Your task to perform on an android device: Go to battery settings Image 0: 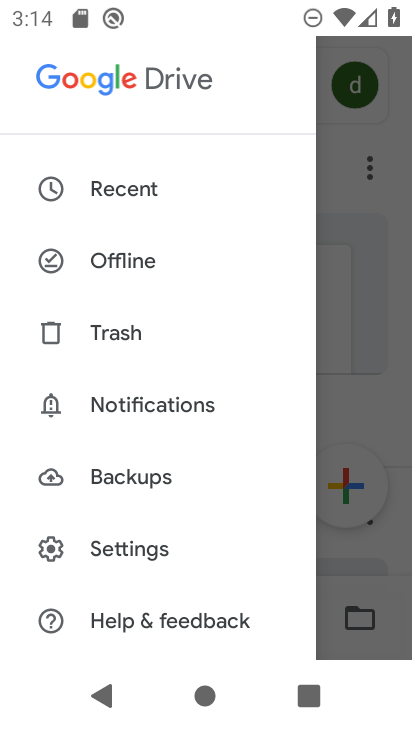
Step 0: press home button
Your task to perform on an android device: Go to battery settings Image 1: 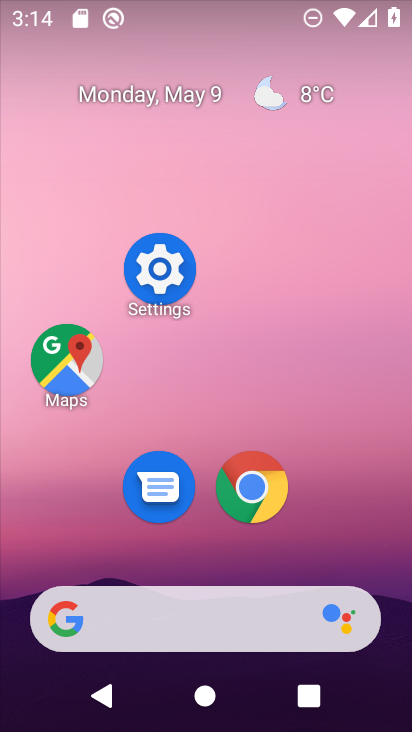
Step 1: drag from (349, 490) to (336, 25)
Your task to perform on an android device: Go to battery settings Image 2: 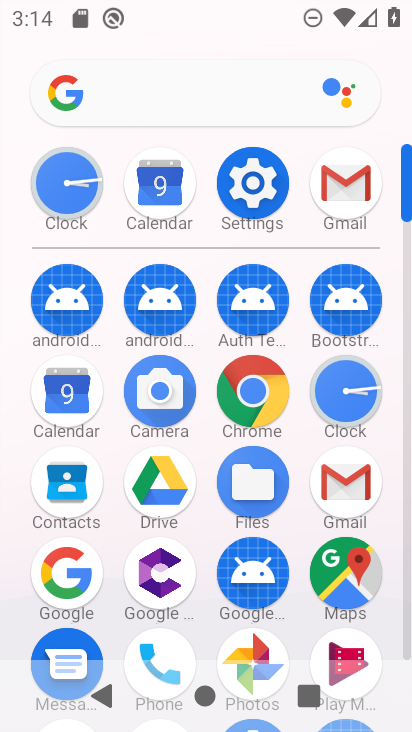
Step 2: click (261, 185)
Your task to perform on an android device: Go to battery settings Image 3: 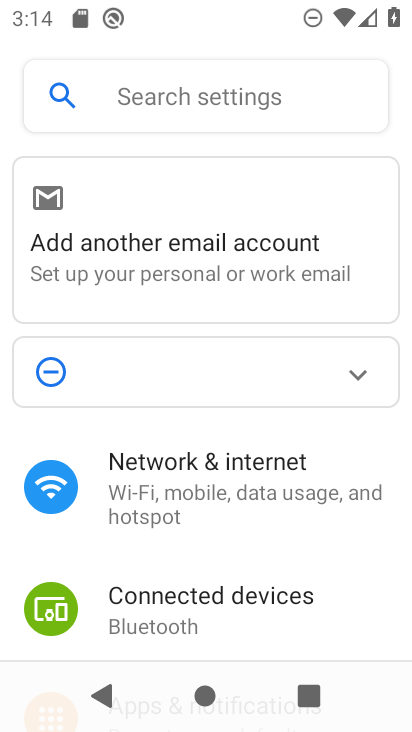
Step 3: drag from (258, 625) to (244, 251)
Your task to perform on an android device: Go to battery settings Image 4: 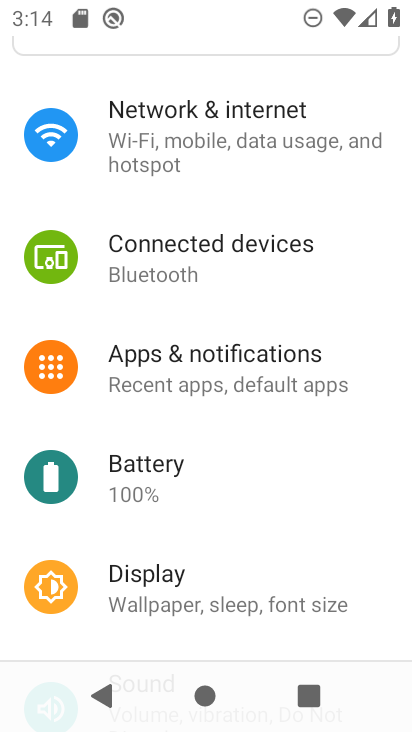
Step 4: click (194, 470)
Your task to perform on an android device: Go to battery settings Image 5: 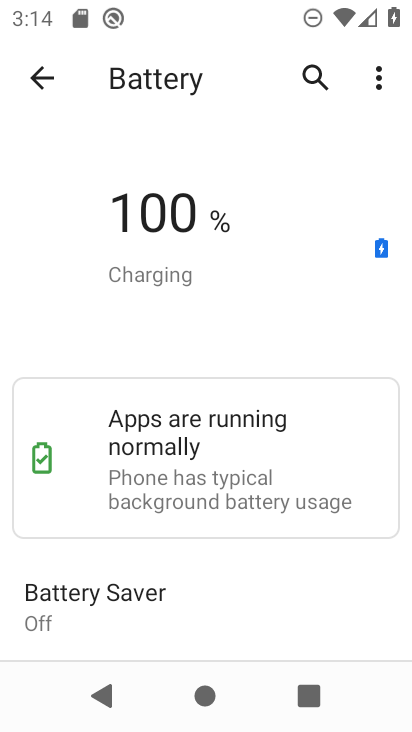
Step 5: task complete